Your task to perform on an android device: delete location history Image 0: 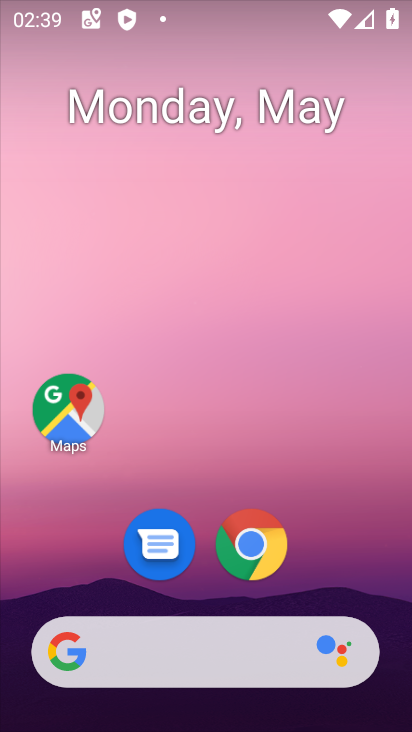
Step 0: drag from (343, 559) to (354, 195)
Your task to perform on an android device: delete location history Image 1: 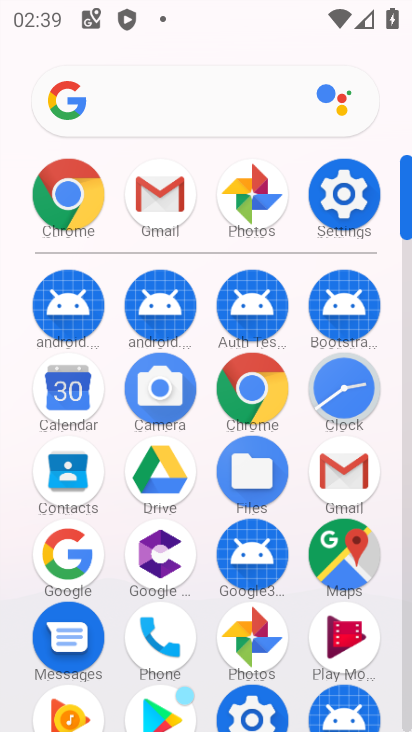
Step 1: click (361, 543)
Your task to perform on an android device: delete location history Image 2: 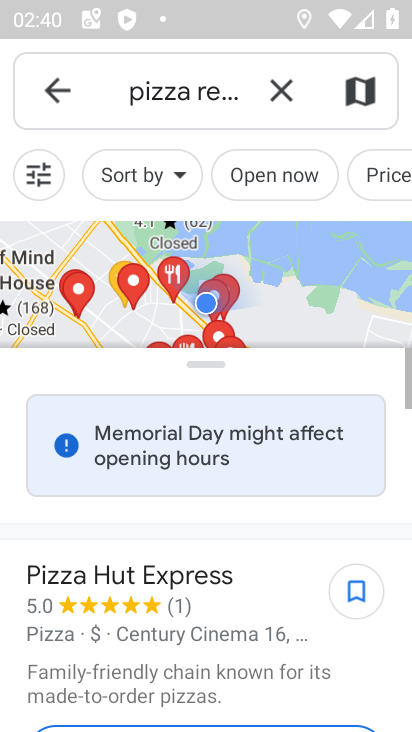
Step 2: click (64, 102)
Your task to perform on an android device: delete location history Image 3: 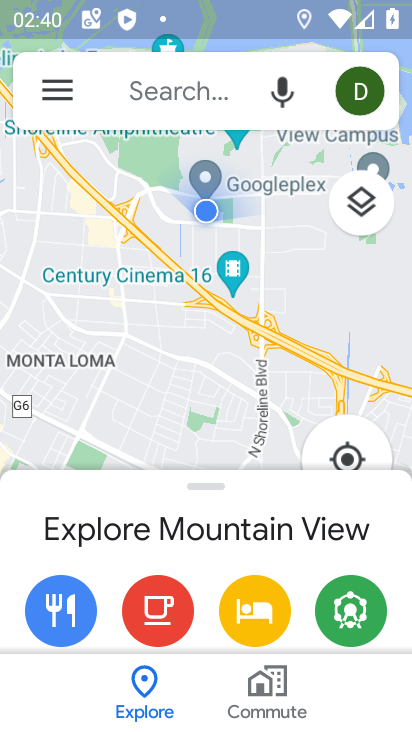
Step 3: click (54, 100)
Your task to perform on an android device: delete location history Image 4: 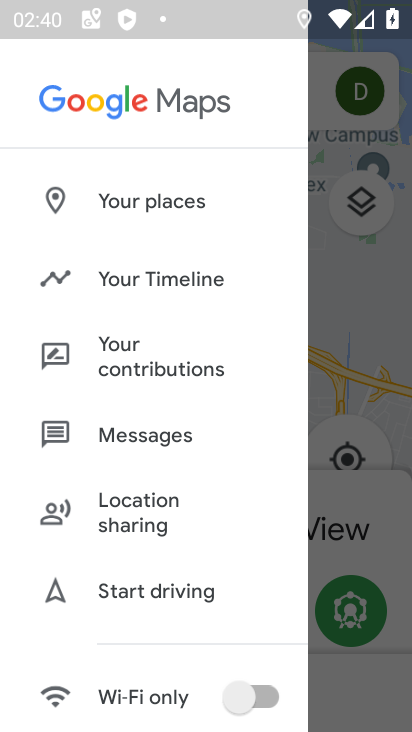
Step 4: click (115, 281)
Your task to perform on an android device: delete location history Image 5: 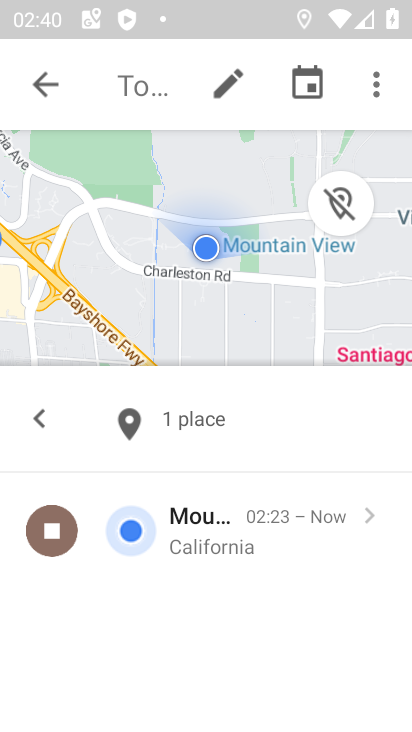
Step 5: click (382, 93)
Your task to perform on an android device: delete location history Image 6: 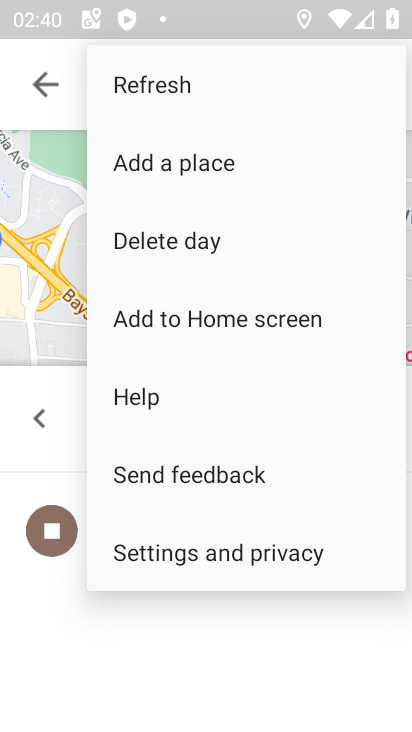
Step 6: click (222, 562)
Your task to perform on an android device: delete location history Image 7: 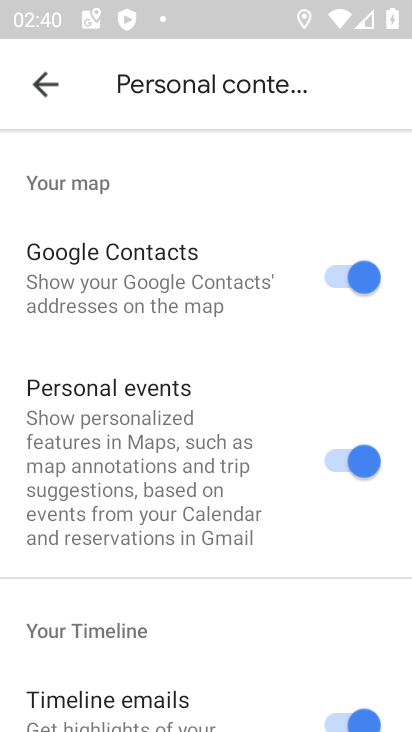
Step 7: drag from (263, 601) to (281, 463)
Your task to perform on an android device: delete location history Image 8: 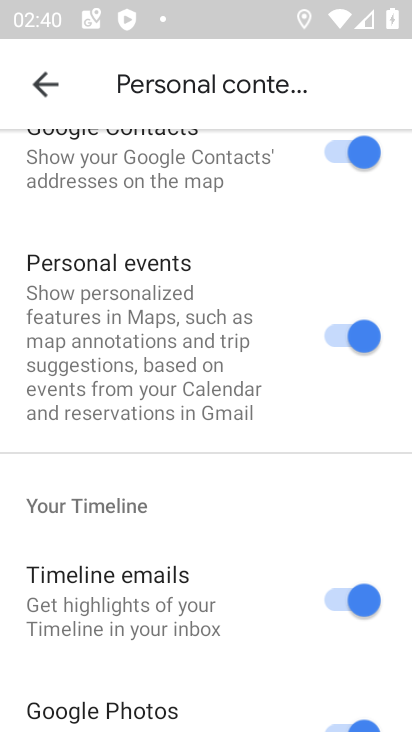
Step 8: drag from (283, 610) to (281, 458)
Your task to perform on an android device: delete location history Image 9: 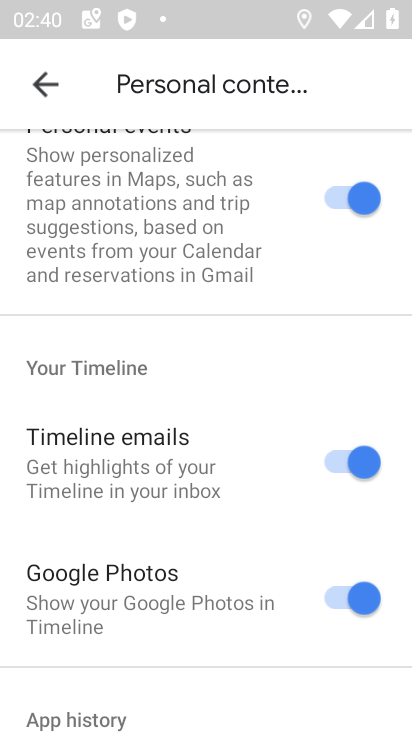
Step 9: drag from (276, 635) to (282, 481)
Your task to perform on an android device: delete location history Image 10: 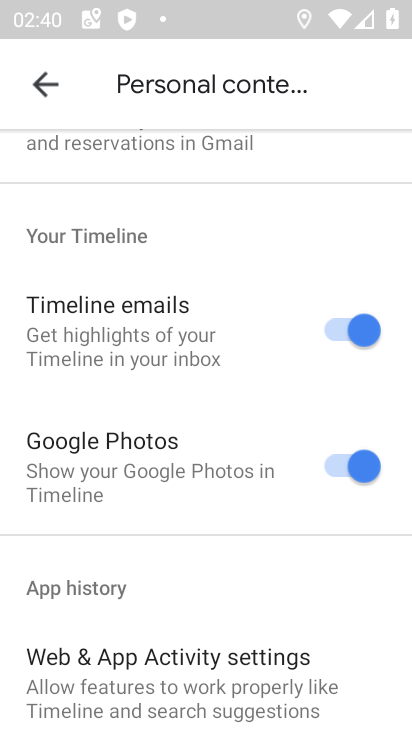
Step 10: drag from (284, 613) to (299, 460)
Your task to perform on an android device: delete location history Image 11: 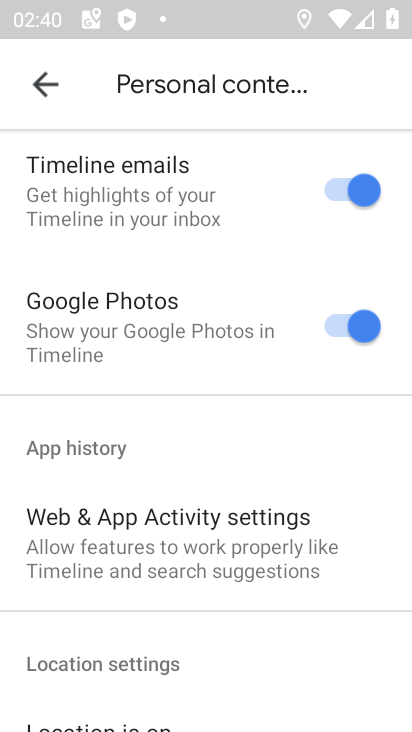
Step 11: drag from (282, 654) to (263, 474)
Your task to perform on an android device: delete location history Image 12: 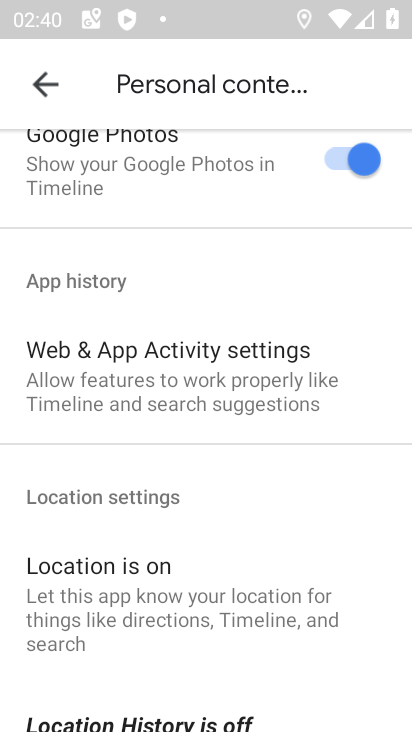
Step 12: drag from (249, 646) to (260, 484)
Your task to perform on an android device: delete location history Image 13: 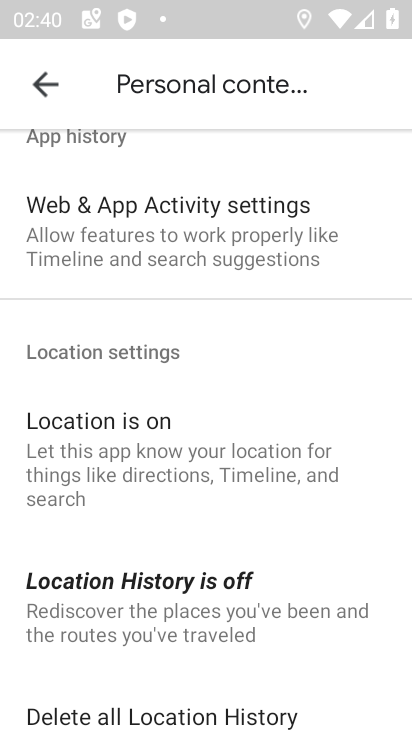
Step 13: drag from (270, 659) to (286, 470)
Your task to perform on an android device: delete location history Image 14: 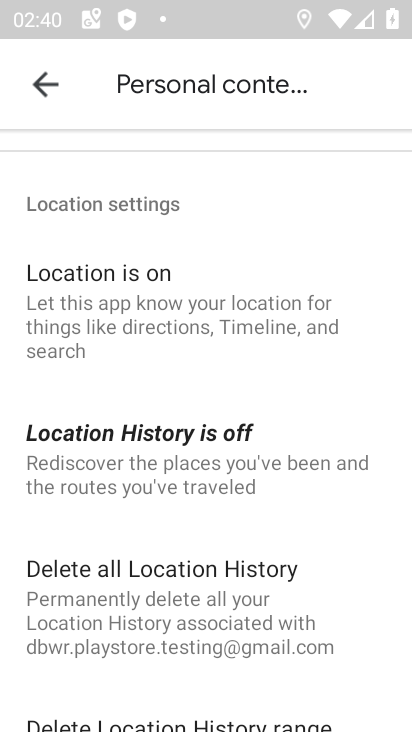
Step 14: drag from (306, 683) to (310, 504)
Your task to perform on an android device: delete location history Image 15: 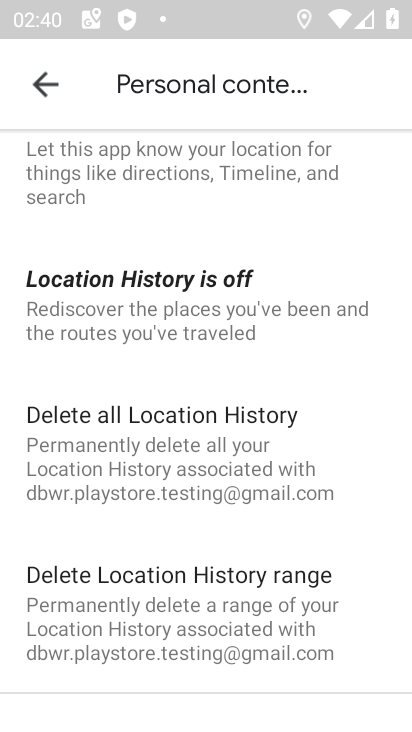
Step 15: click (243, 478)
Your task to perform on an android device: delete location history Image 16: 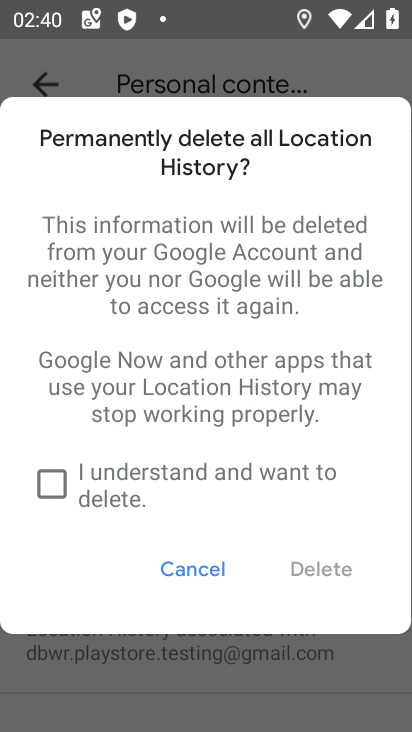
Step 16: click (64, 468)
Your task to perform on an android device: delete location history Image 17: 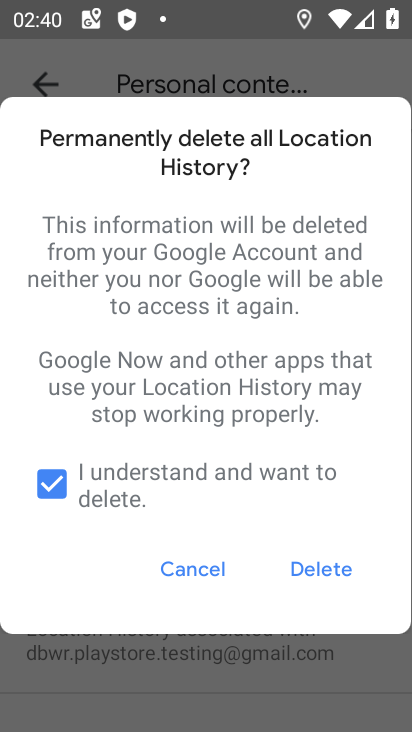
Step 17: click (285, 579)
Your task to perform on an android device: delete location history Image 18: 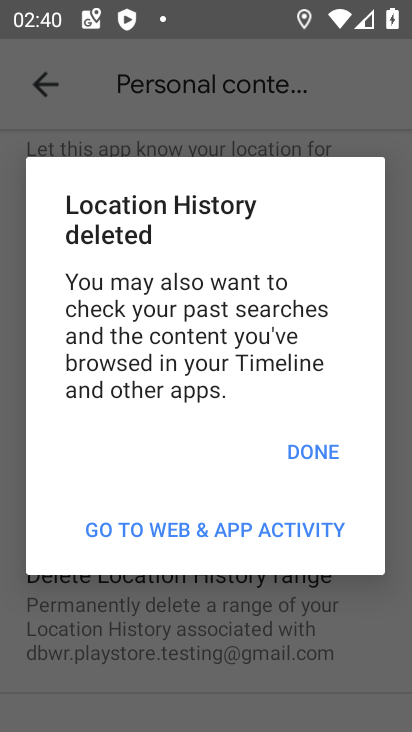
Step 18: click (291, 442)
Your task to perform on an android device: delete location history Image 19: 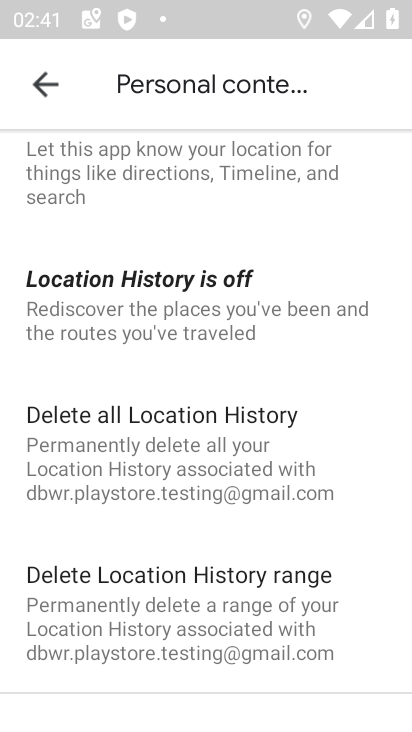
Step 19: task complete